Your task to perform on an android device: toggle priority inbox in the gmail app Image 0: 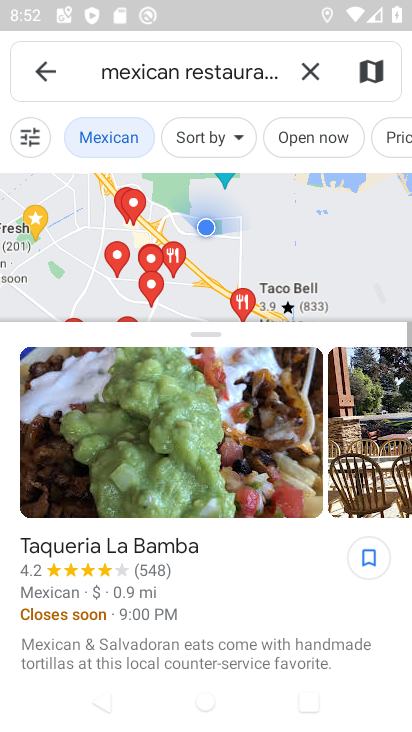
Step 0: press home button
Your task to perform on an android device: toggle priority inbox in the gmail app Image 1: 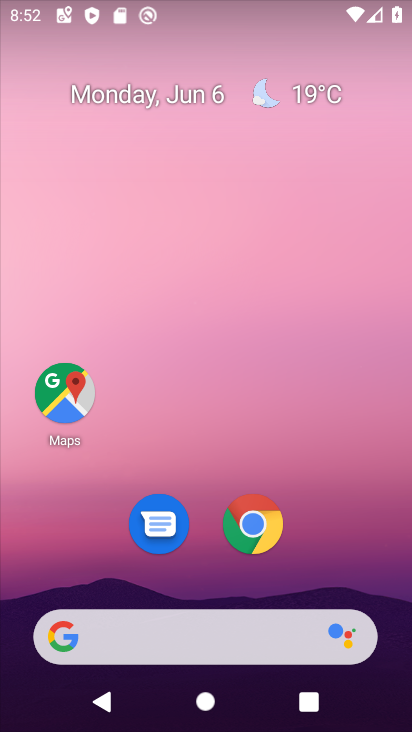
Step 1: drag from (317, 539) to (323, 29)
Your task to perform on an android device: toggle priority inbox in the gmail app Image 2: 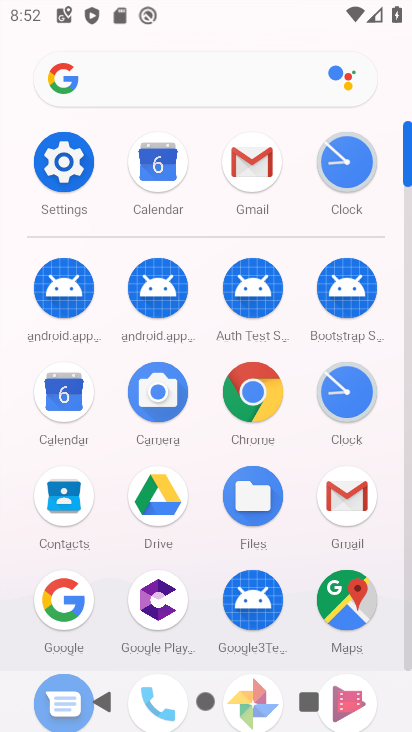
Step 2: click (275, 152)
Your task to perform on an android device: toggle priority inbox in the gmail app Image 3: 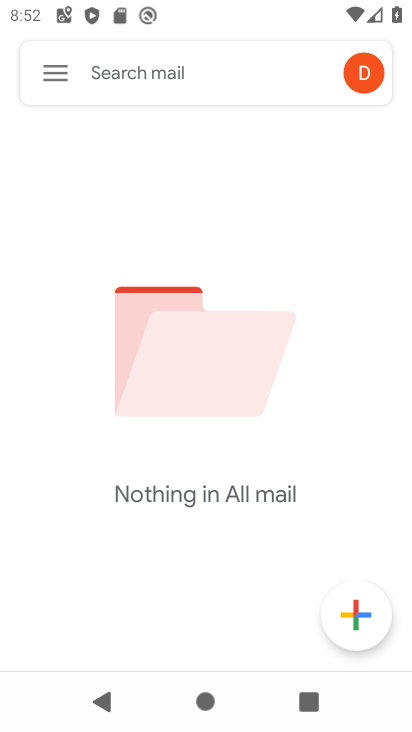
Step 3: click (54, 76)
Your task to perform on an android device: toggle priority inbox in the gmail app Image 4: 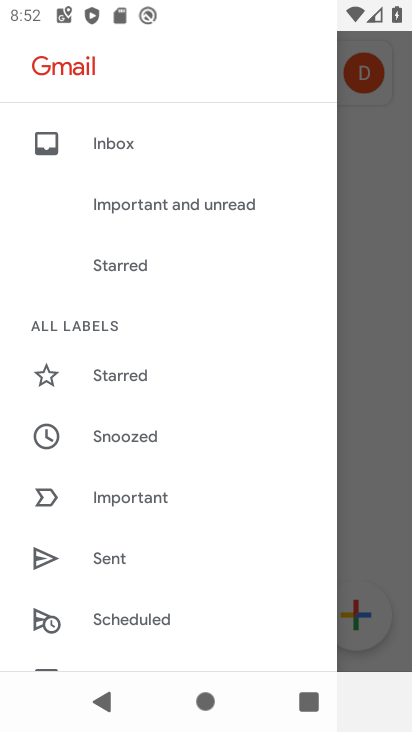
Step 4: drag from (224, 508) to (190, 184)
Your task to perform on an android device: toggle priority inbox in the gmail app Image 5: 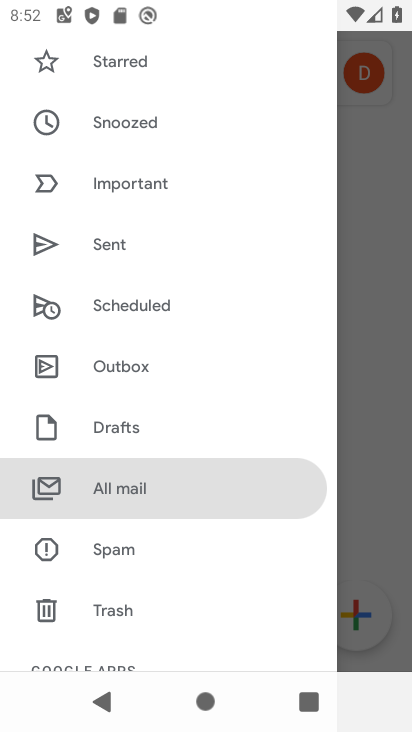
Step 5: drag from (204, 317) to (196, 104)
Your task to perform on an android device: toggle priority inbox in the gmail app Image 6: 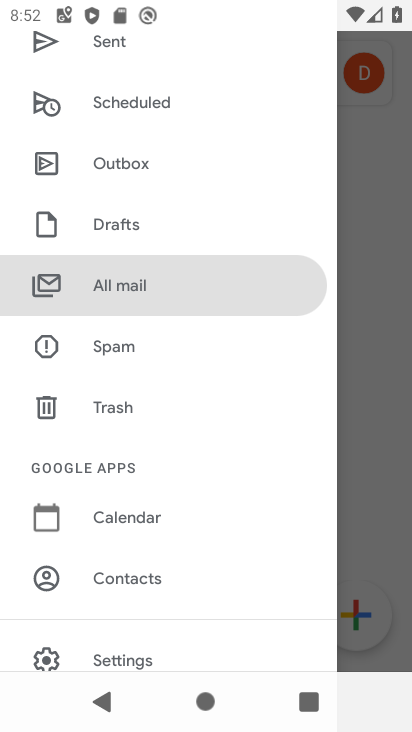
Step 6: click (164, 659)
Your task to perform on an android device: toggle priority inbox in the gmail app Image 7: 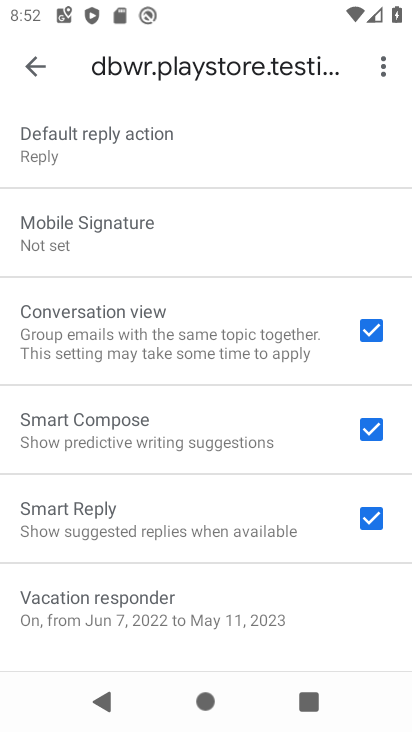
Step 7: drag from (195, 184) to (163, 607)
Your task to perform on an android device: toggle priority inbox in the gmail app Image 8: 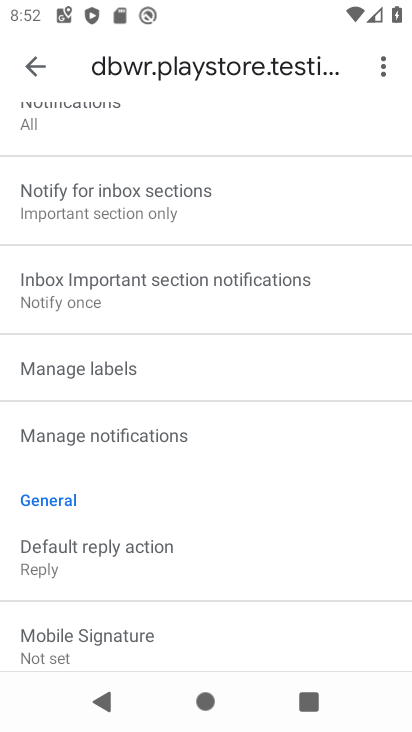
Step 8: drag from (272, 195) to (250, 616)
Your task to perform on an android device: toggle priority inbox in the gmail app Image 9: 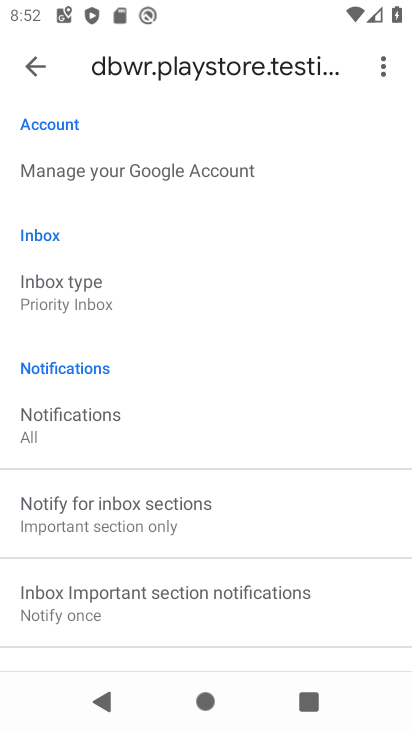
Step 9: click (71, 294)
Your task to perform on an android device: toggle priority inbox in the gmail app Image 10: 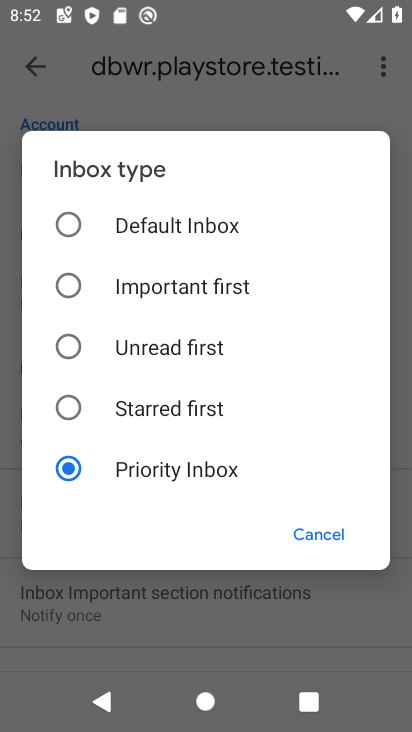
Step 10: click (71, 225)
Your task to perform on an android device: toggle priority inbox in the gmail app Image 11: 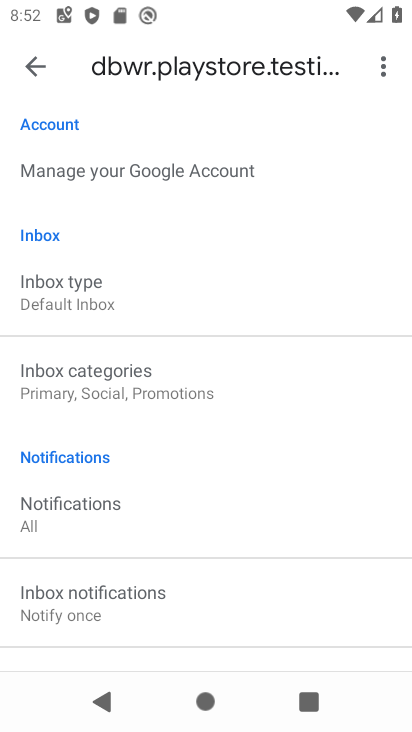
Step 11: task complete